Your task to perform on an android device: install app "Google Calendar" Image 0: 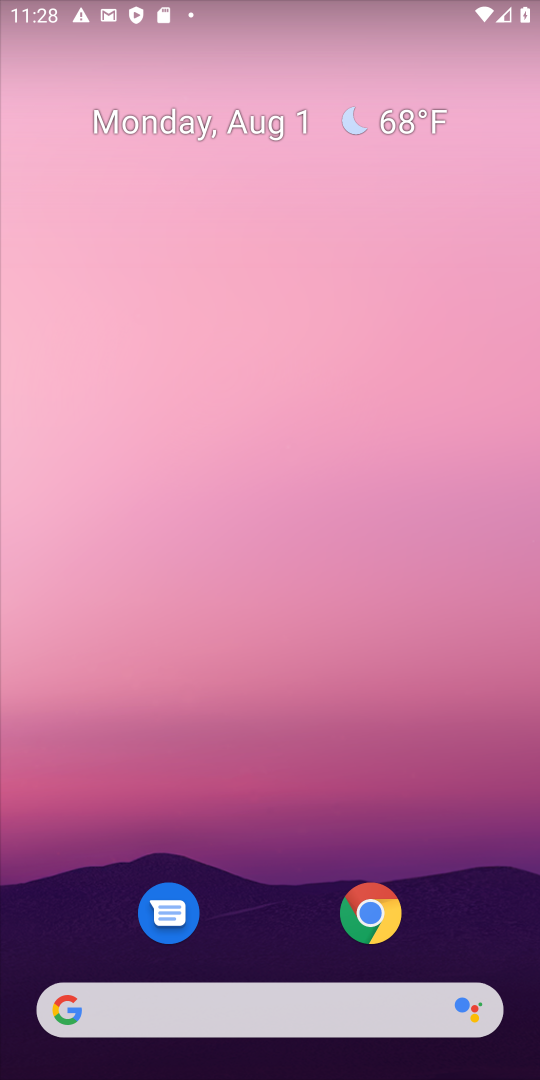
Step 0: drag from (509, 988) to (471, 249)
Your task to perform on an android device: install app "Google Calendar" Image 1: 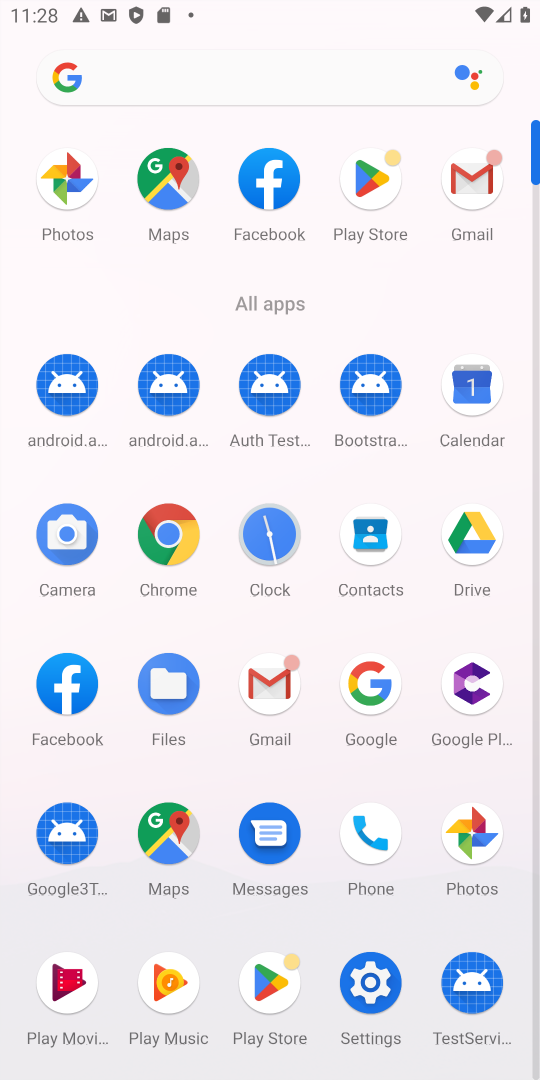
Step 1: click (465, 404)
Your task to perform on an android device: install app "Google Calendar" Image 2: 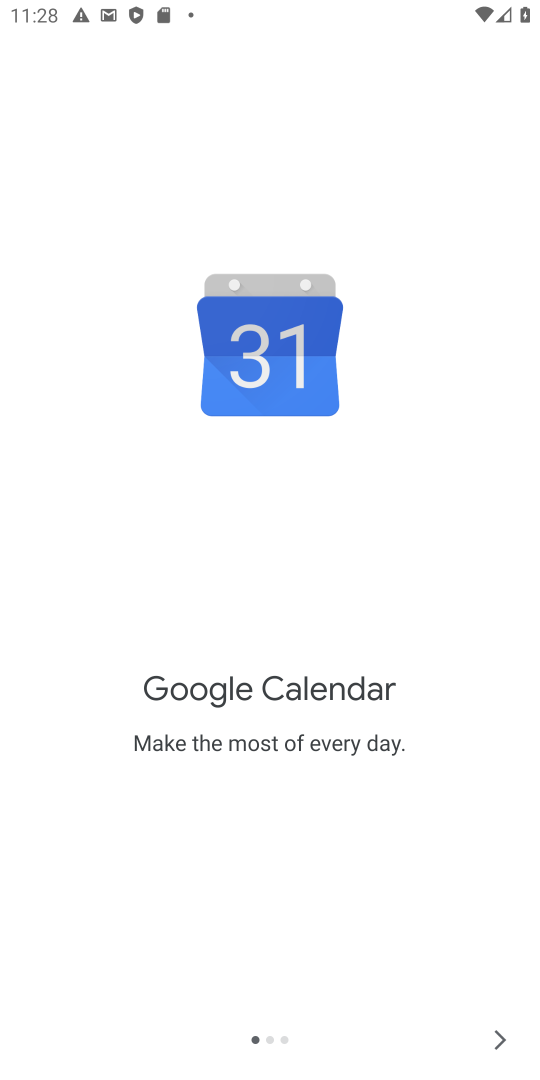
Step 2: task complete